Your task to perform on an android device: make emails show in primary in the gmail app Image 0: 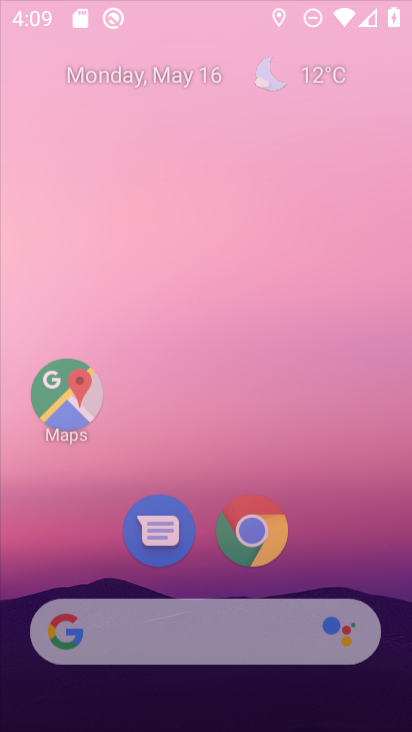
Step 0: drag from (374, 546) to (297, 95)
Your task to perform on an android device: make emails show in primary in the gmail app Image 1: 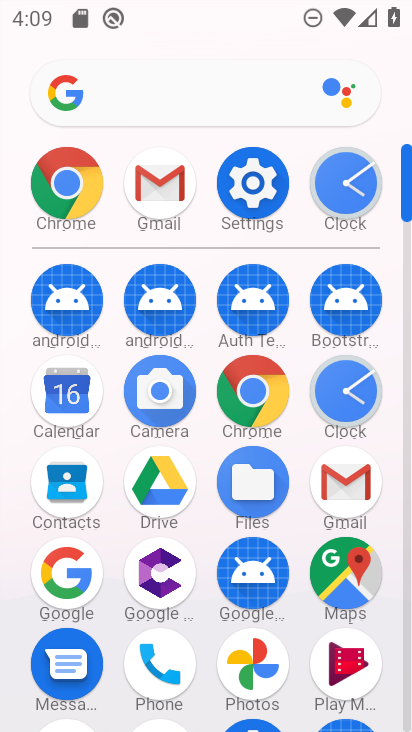
Step 1: click (253, 224)
Your task to perform on an android device: make emails show in primary in the gmail app Image 2: 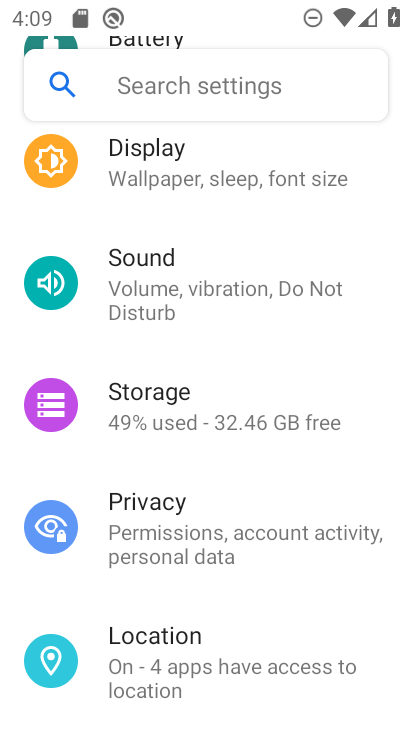
Step 2: drag from (253, 224) to (226, 174)
Your task to perform on an android device: make emails show in primary in the gmail app Image 3: 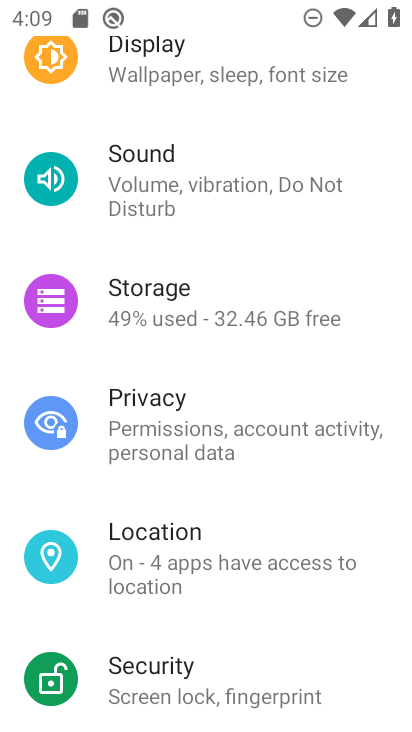
Step 3: drag from (200, 484) to (154, 115)
Your task to perform on an android device: make emails show in primary in the gmail app Image 4: 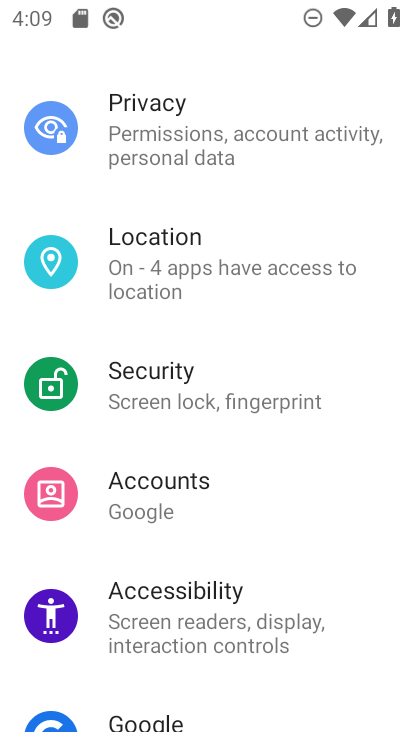
Step 4: drag from (153, 586) to (123, 292)
Your task to perform on an android device: make emails show in primary in the gmail app Image 5: 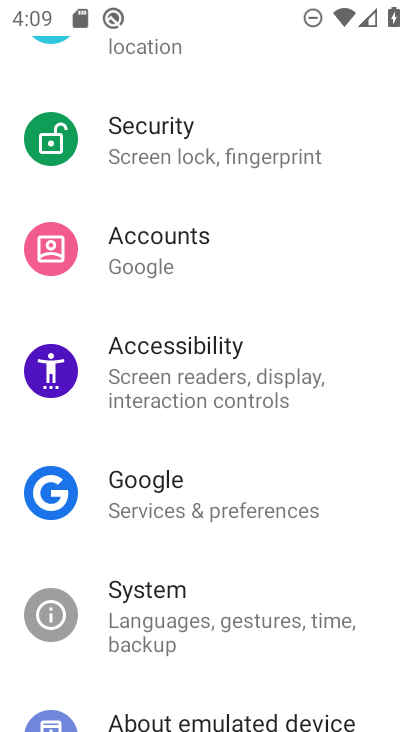
Step 5: drag from (206, 588) to (175, 361)
Your task to perform on an android device: make emails show in primary in the gmail app Image 6: 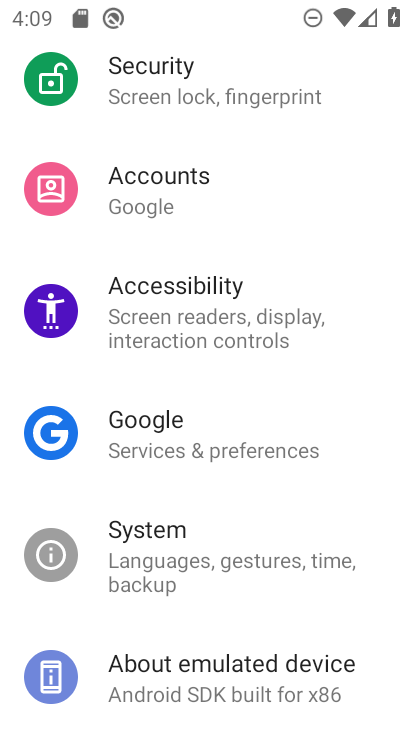
Step 6: drag from (175, 361) to (170, 320)
Your task to perform on an android device: make emails show in primary in the gmail app Image 7: 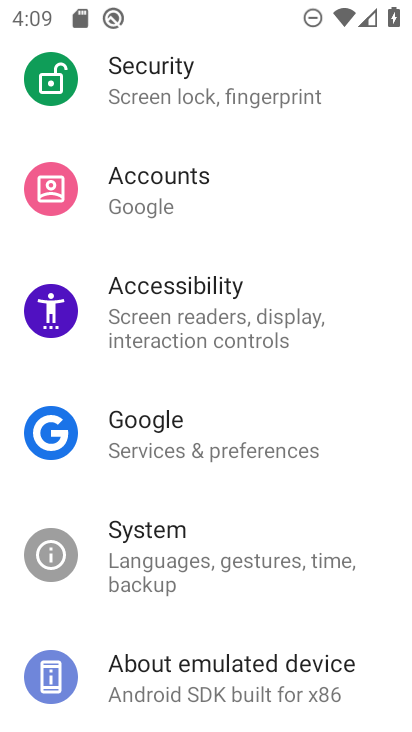
Step 7: click (163, 344)
Your task to perform on an android device: make emails show in primary in the gmail app Image 8: 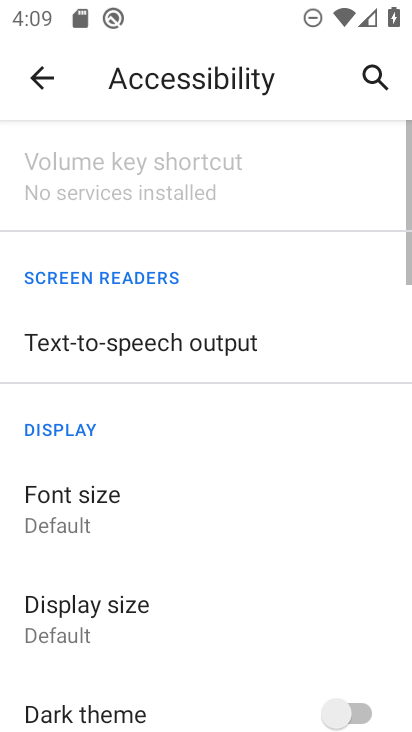
Step 8: task complete